Your task to perform on an android device: What's the weather today? Image 0: 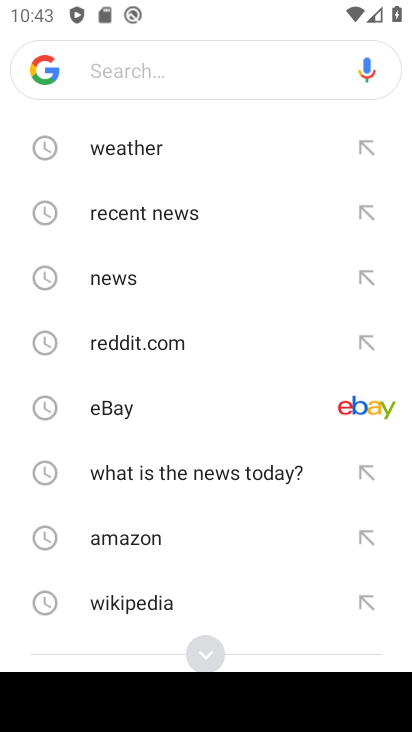
Step 0: click (145, 151)
Your task to perform on an android device: What's the weather today? Image 1: 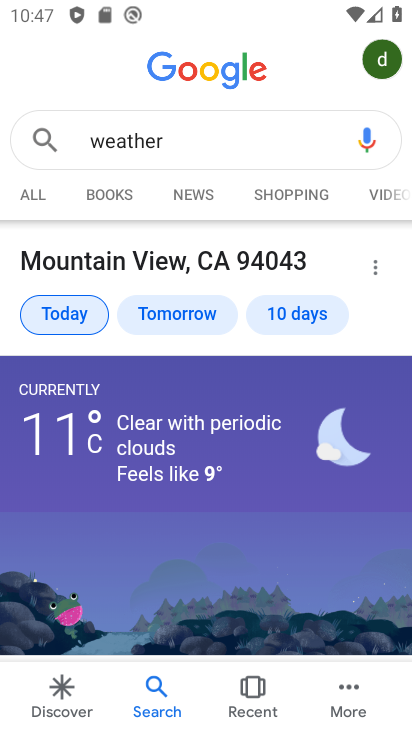
Step 1: click (26, 306)
Your task to perform on an android device: What's the weather today? Image 2: 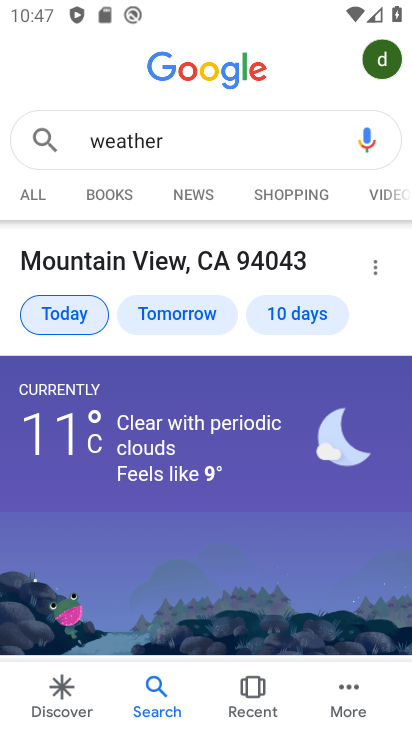
Step 2: task complete